Your task to perform on an android device: turn on showing notifications on the lock screen Image 0: 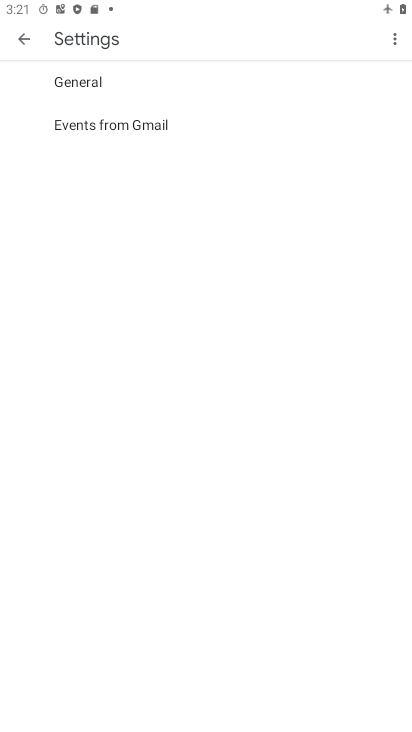
Step 0: press home button
Your task to perform on an android device: turn on showing notifications on the lock screen Image 1: 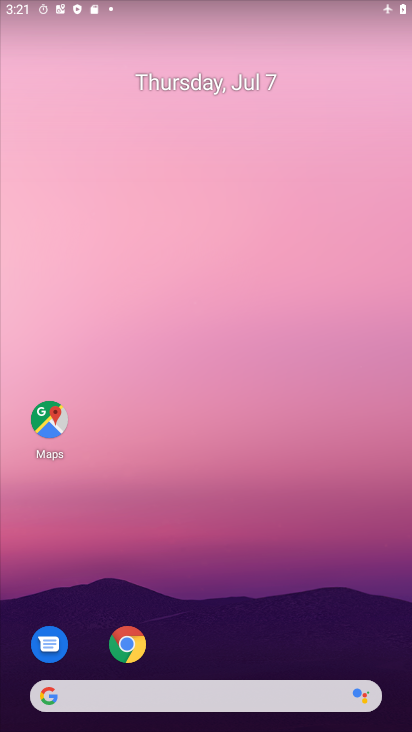
Step 1: drag from (256, 662) to (408, 179)
Your task to perform on an android device: turn on showing notifications on the lock screen Image 2: 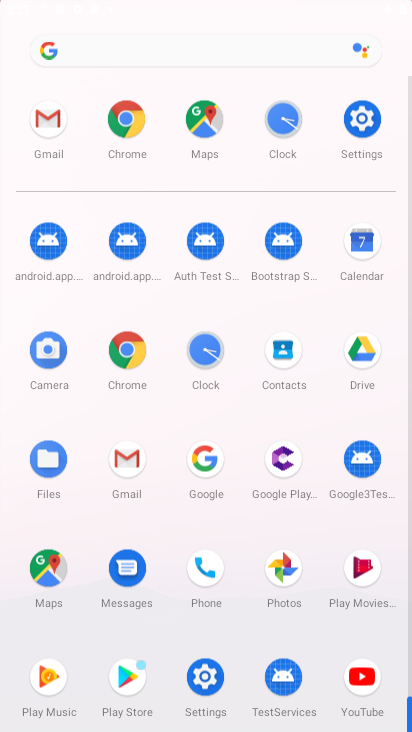
Step 2: click (360, 137)
Your task to perform on an android device: turn on showing notifications on the lock screen Image 3: 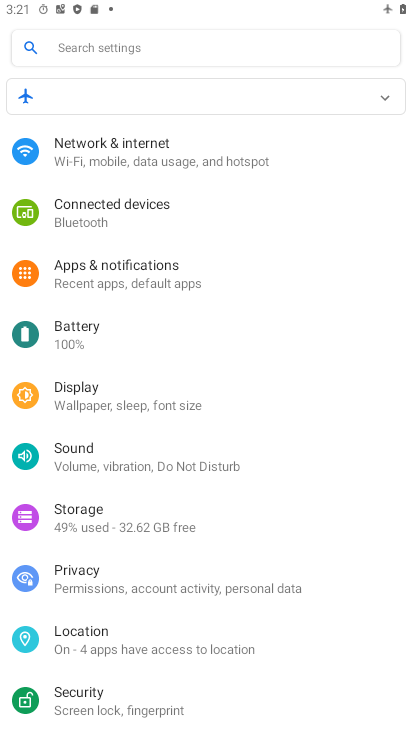
Step 3: click (99, 269)
Your task to perform on an android device: turn on showing notifications on the lock screen Image 4: 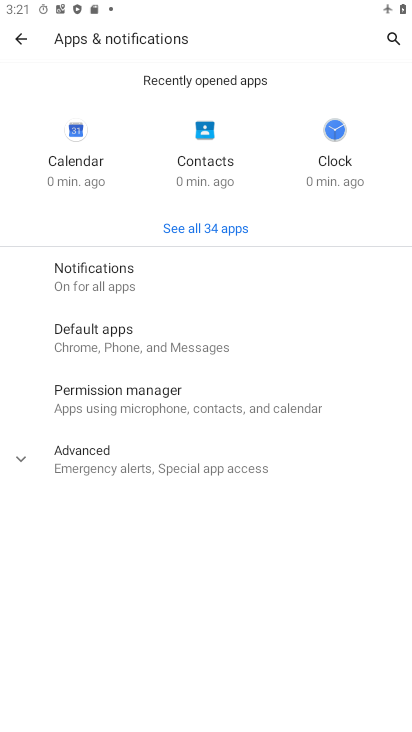
Step 4: click (160, 272)
Your task to perform on an android device: turn on showing notifications on the lock screen Image 5: 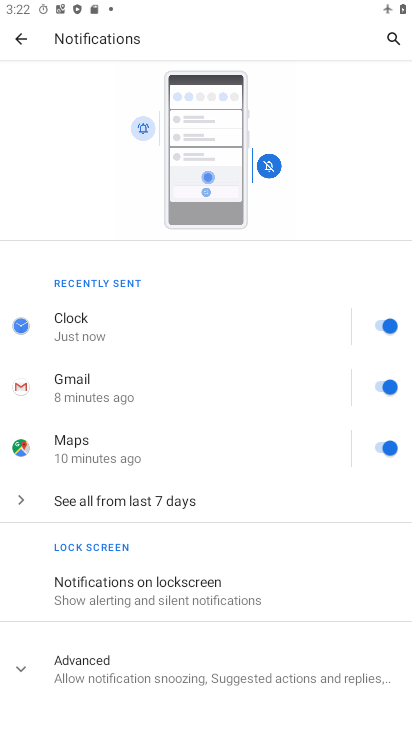
Step 5: click (188, 578)
Your task to perform on an android device: turn on showing notifications on the lock screen Image 6: 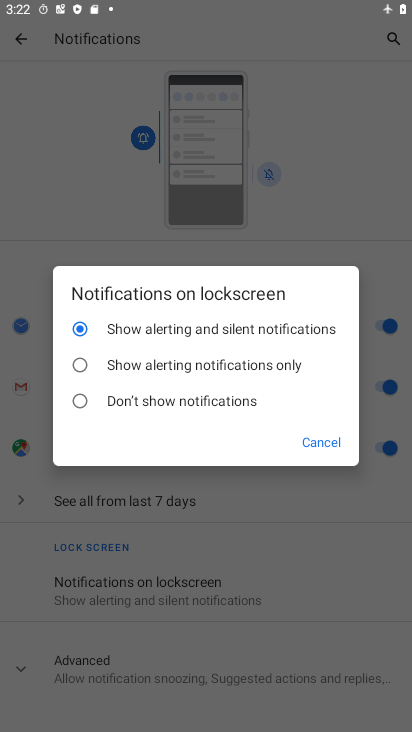
Step 6: click (257, 342)
Your task to perform on an android device: turn on showing notifications on the lock screen Image 7: 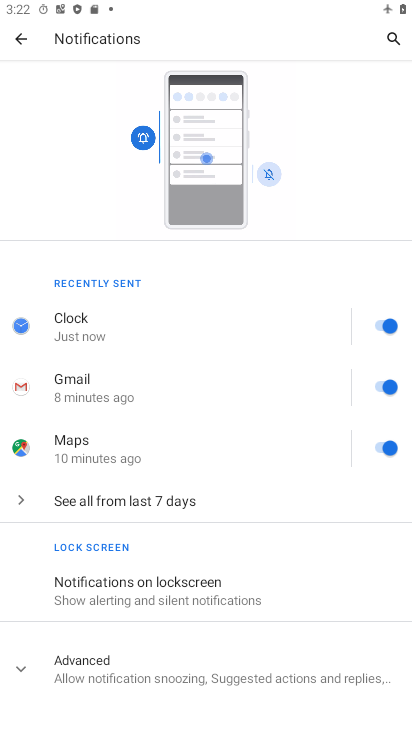
Step 7: task complete